Your task to perform on an android device: check data usage Image 0: 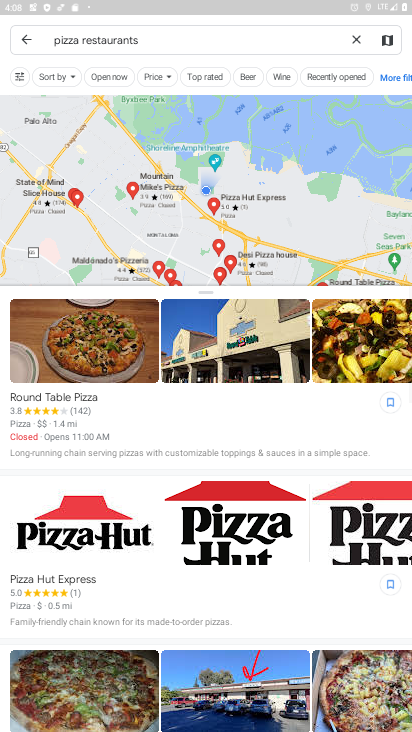
Step 0: press home button
Your task to perform on an android device: check data usage Image 1: 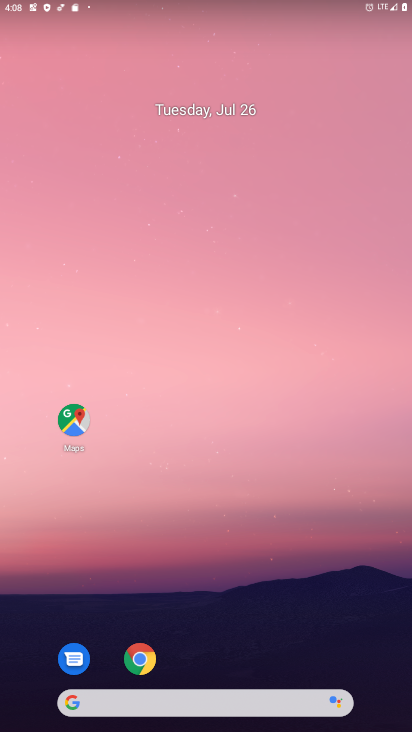
Step 1: drag from (247, 583) to (262, 189)
Your task to perform on an android device: check data usage Image 2: 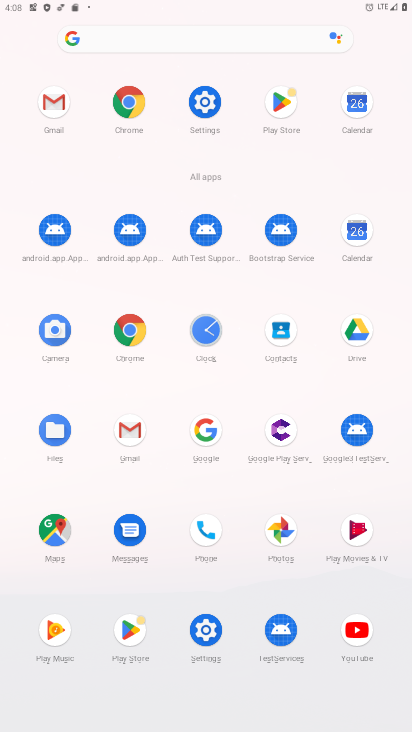
Step 2: click (201, 635)
Your task to perform on an android device: check data usage Image 3: 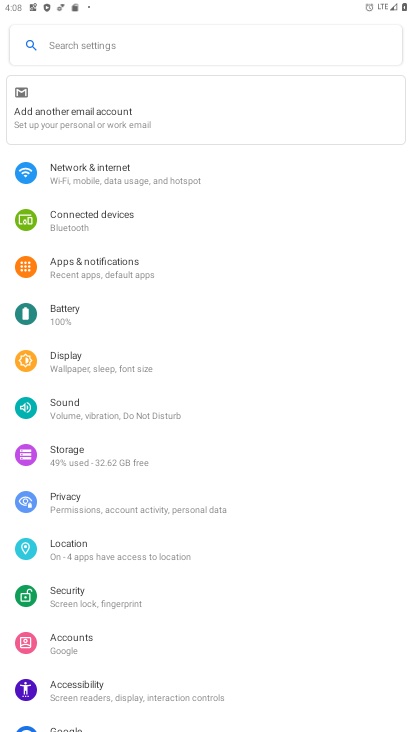
Step 3: click (92, 178)
Your task to perform on an android device: check data usage Image 4: 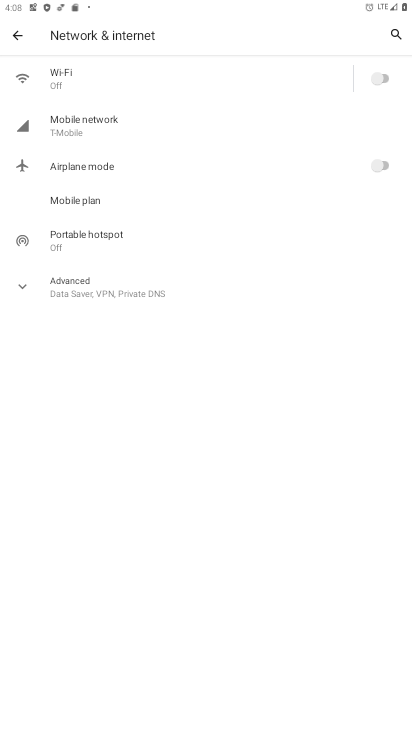
Step 4: click (72, 124)
Your task to perform on an android device: check data usage Image 5: 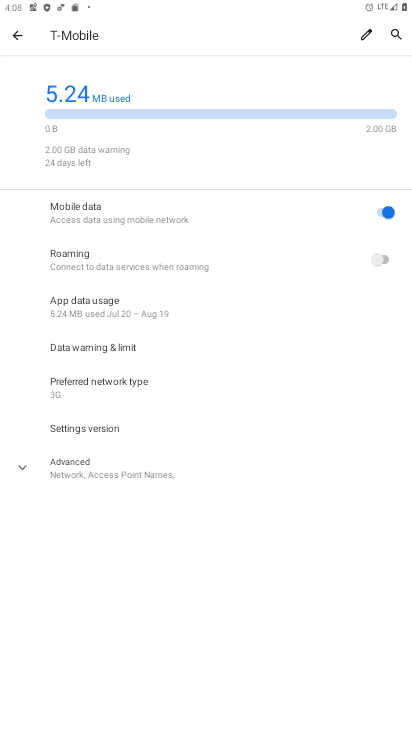
Step 5: click (88, 305)
Your task to perform on an android device: check data usage Image 6: 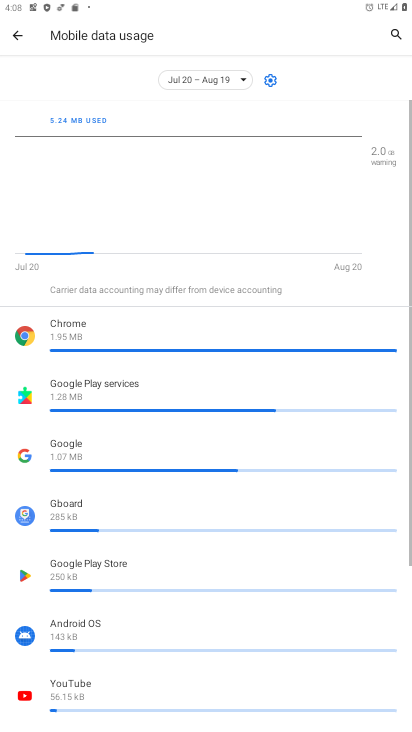
Step 6: task complete